Your task to perform on an android device: turn off priority inbox in the gmail app Image 0: 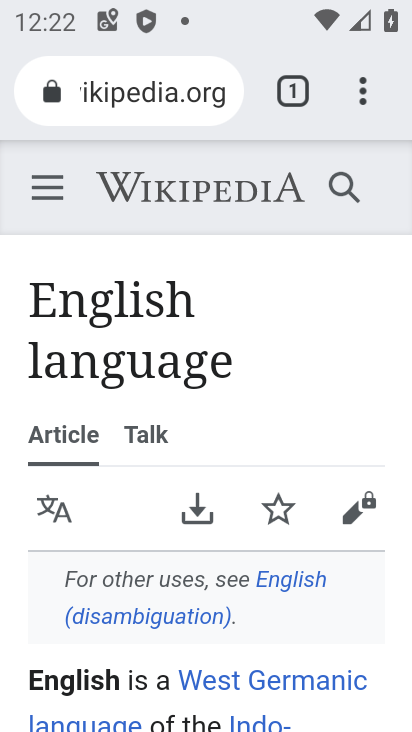
Step 0: press home button
Your task to perform on an android device: turn off priority inbox in the gmail app Image 1: 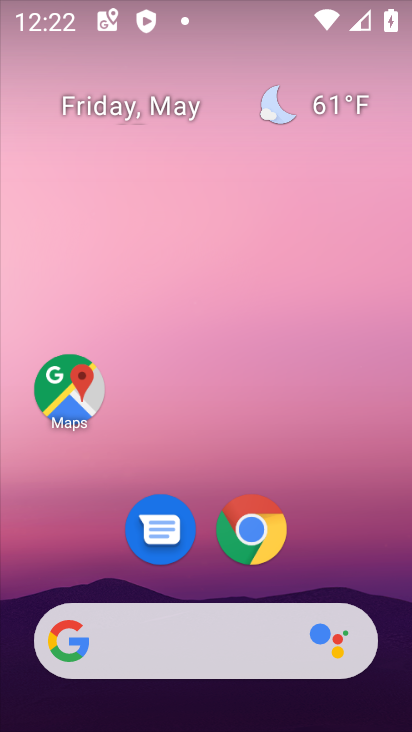
Step 1: drag from (337, 564) to (317, 101)
Your task to perform on an android device: turn off priority inbox in the gmail app Image 2: 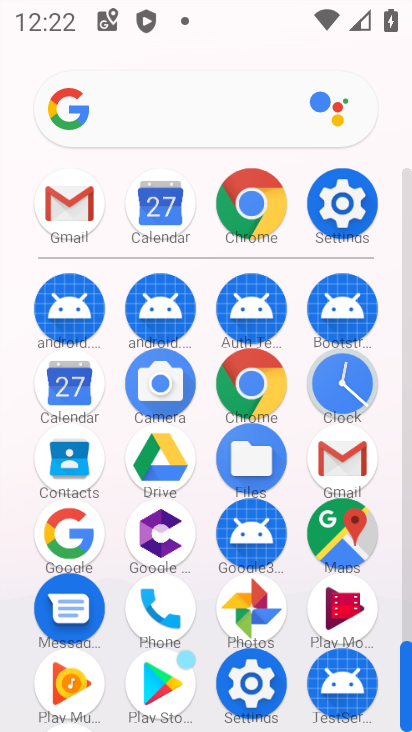
Step 2: click (66, 223)
Your task to perform on an android device: turn off priority inbox in the gmail app Image 3: 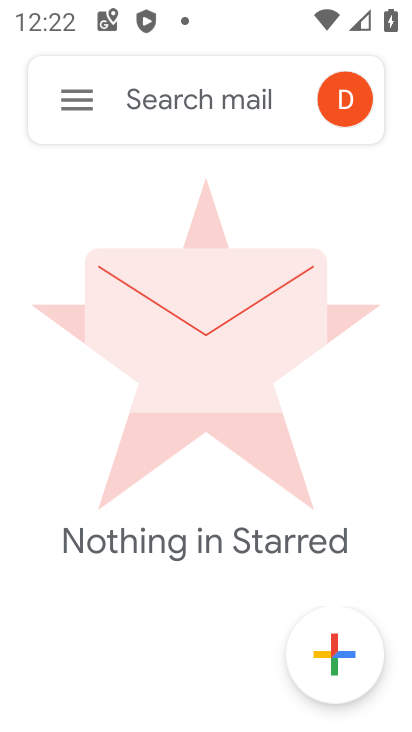
Step 3: click (60, 103)
Your task to perform on an android device: turn off priority inbox in the gmail app Image 4: 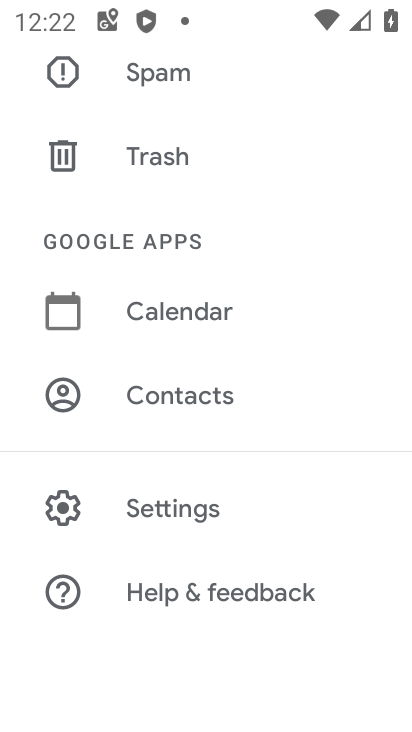
Step 4: drag from (158, 224) to (179, 724)
Your task to perform on an android device: turn off priority inbox in the gmail app Image 5: 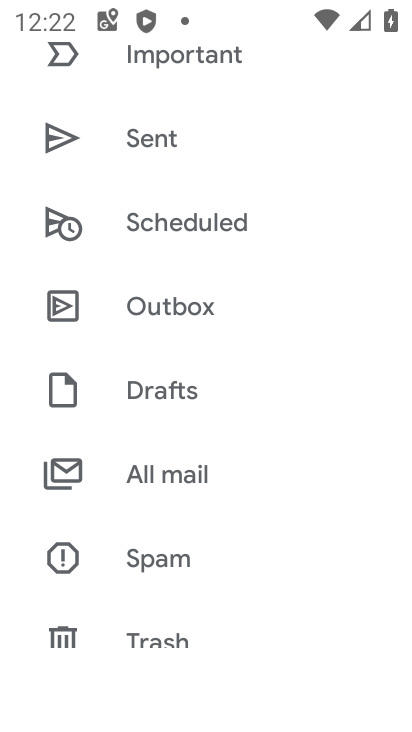
Step 5: drag from (174, 210) to (179, 706)
Your task to perform on an android device: turn off priority inbox in the gmail app Image 6: 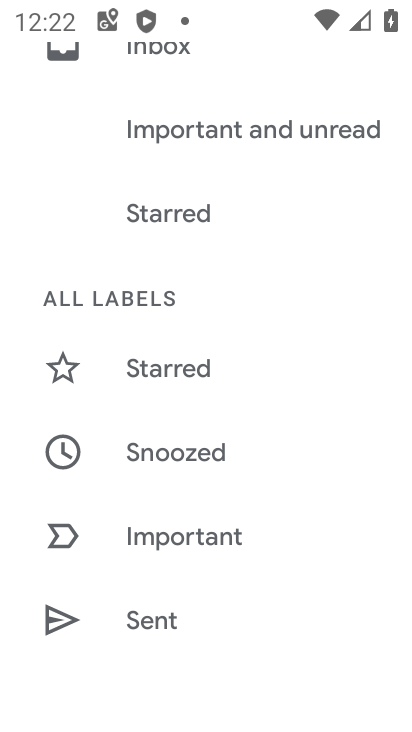
Step 6: click (147, 72)
Your task to perform on an android device: turn off priority inbox in the gmail app Image 7: 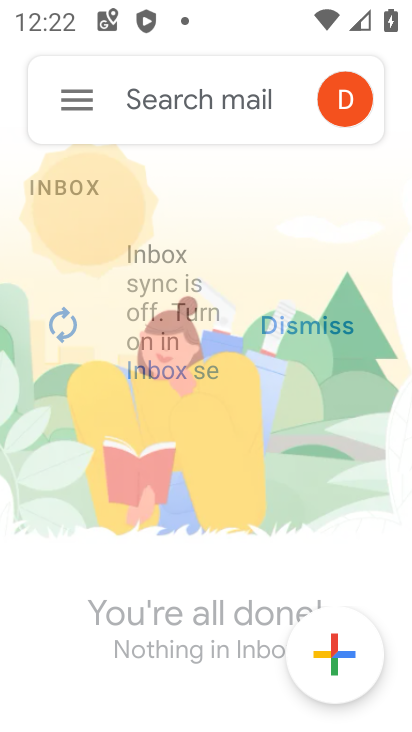
Step 7: task complete